Your task to perform on an android device: toggle notification dots Image 0: 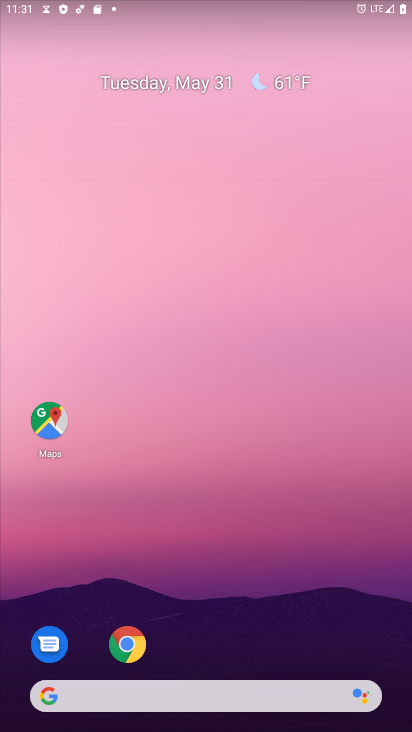
Step 0: drag from (252, 577) to (313, 74)
Your task to perform on an android device: toggle notification dots Image 1: 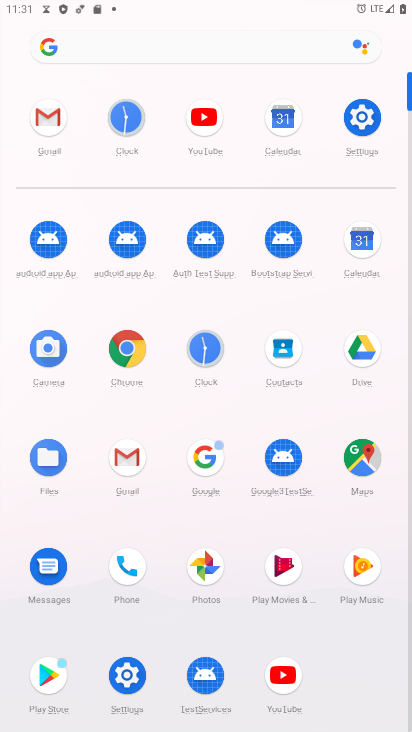
Step 1: click (361, 119)
Your task to perform on an android device: toggle notification dots Image 2: 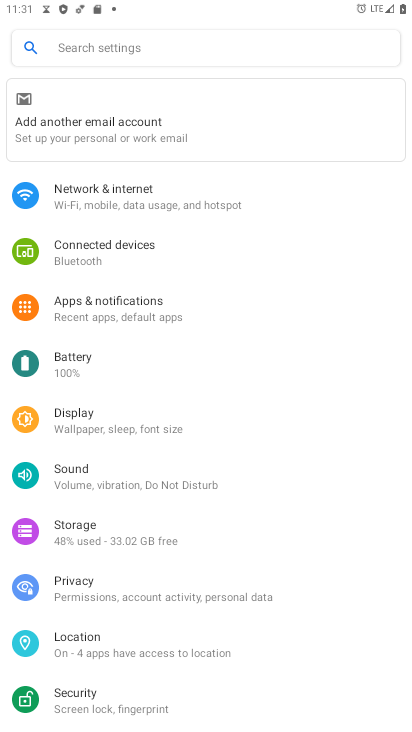
Step 2: click (158, 310)
Your task to perform on an android device: toggle notification dots Image 3: 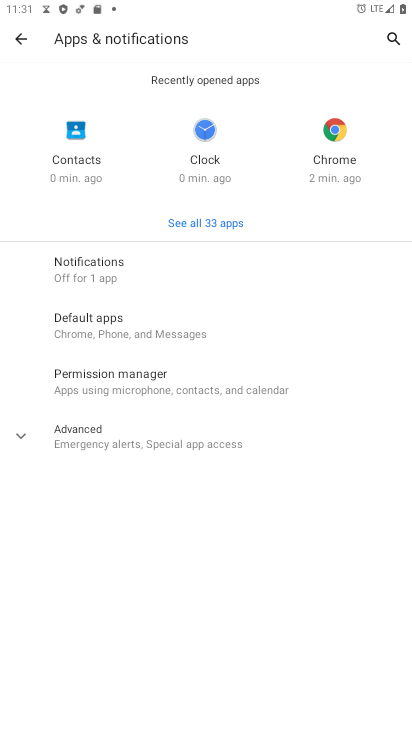
Step 3: click (193, 273)
Your task to perform on an android device: toggle notification dots Image 4: 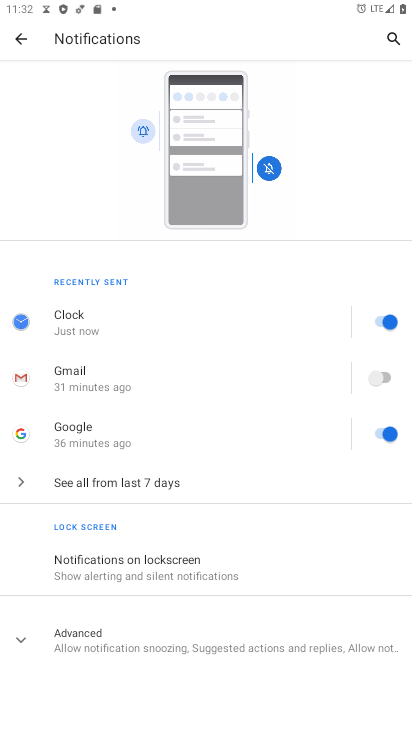
Step 4: drag from (287, 566) to (287, 255)
Your task to perform on an android device: toggle notification dots Image 5: 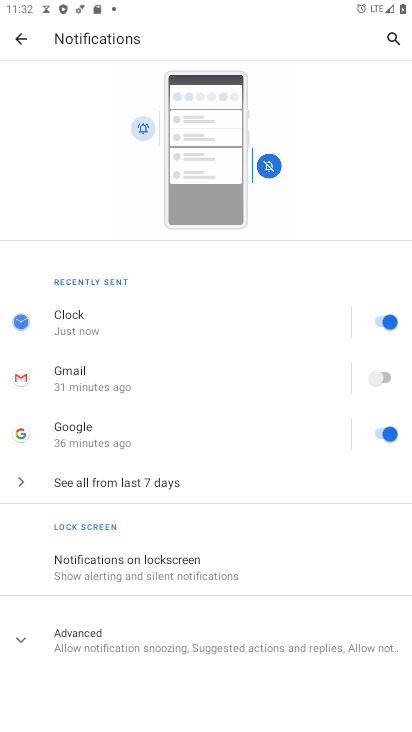
Step 5: click (129, 624)
Your task to perform on an android device: toggle notification dots Image 6: 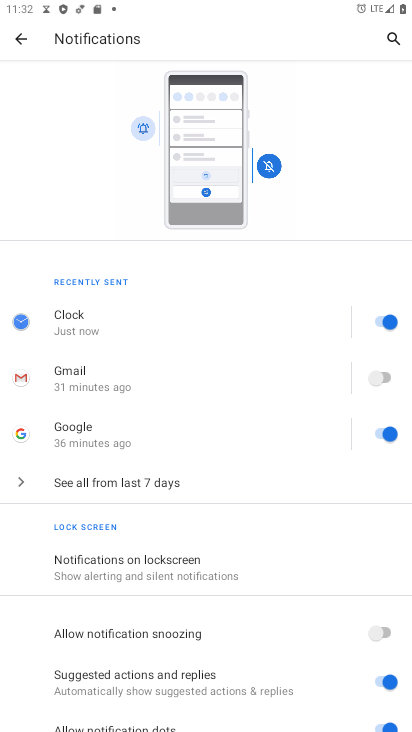
Step 6: drag from (242, 664) to (297, 243)
Your task to perform on an android device: toggle notification dots Image 7: 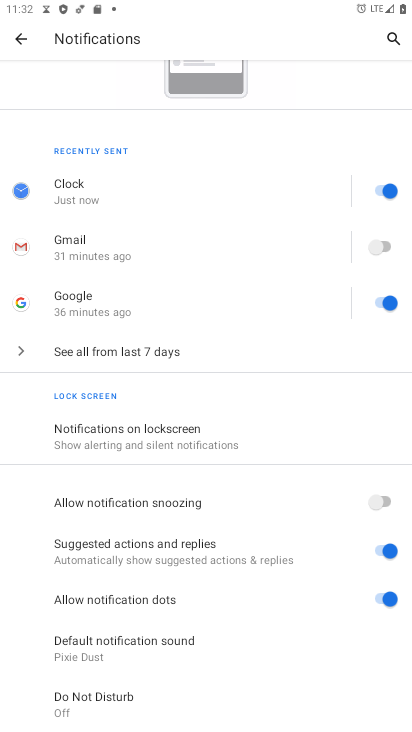
Step 7: click (387, 603)
Your task to perform on an android device: toggle notification dots Image 8: 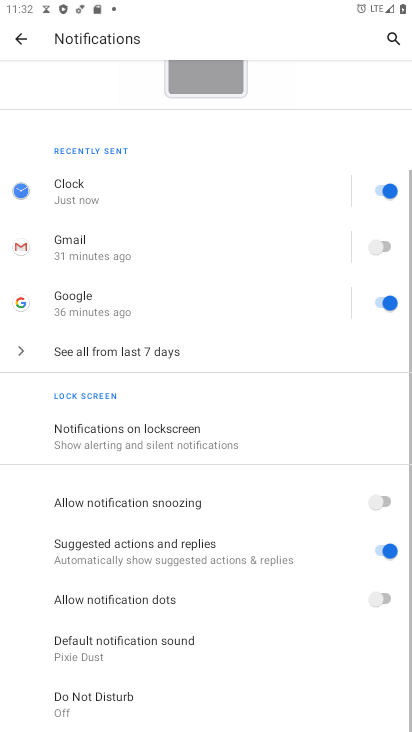
Step 8: task complete